Your task to perform on an android device: change the clock style Image 0: 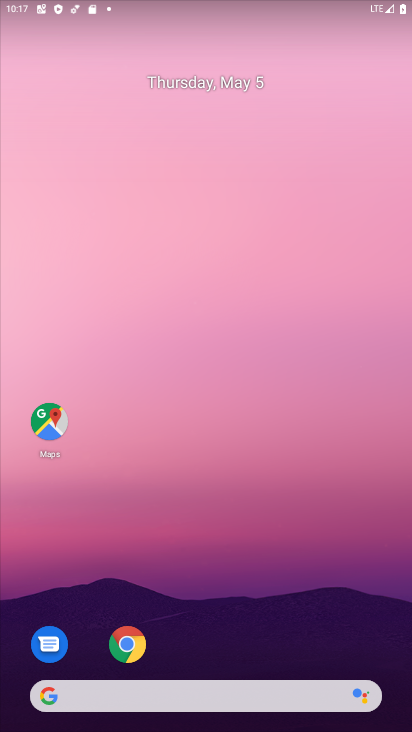
Step 0: drag from (211, 655) to (25, 51)
Your task to perform on an android device: change the clock style Image 1: 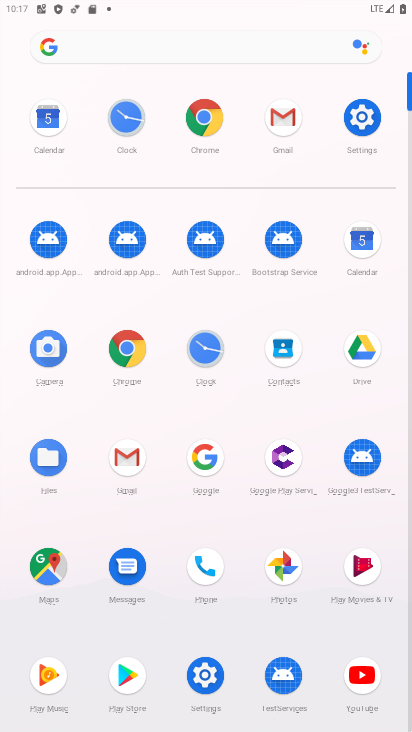
Step 1: click (211, 357)
Your task to perform on an android device: change the clock style Image 2: 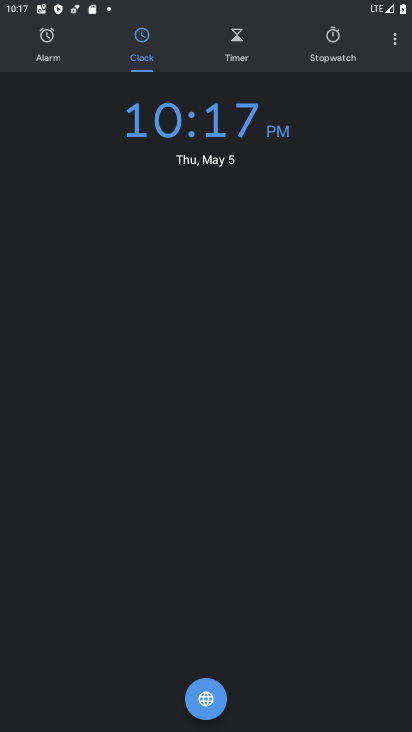
Step 2: click (390, 42)
Your task to perform on an android device: change the clock style Image 3: 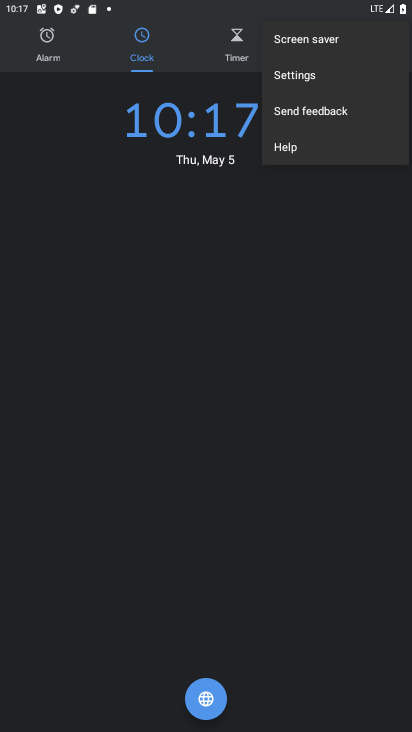
Step 3: click (306, 76)
Your task to perform on an android device: change the clock style Image 4: 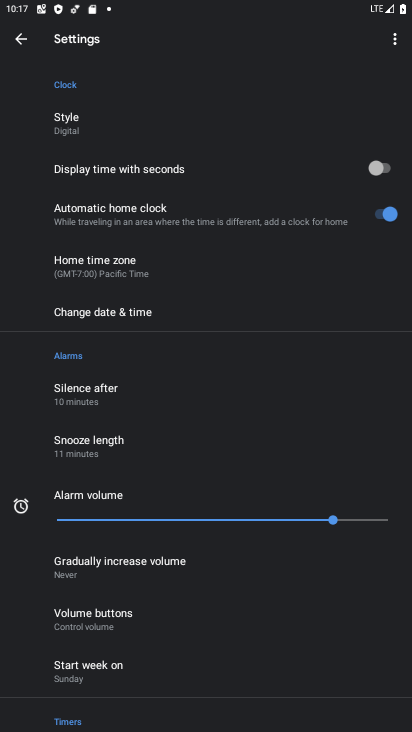
Step 4: click (87, 122)
Your task to perform on an android device: change the clock style Image 5: 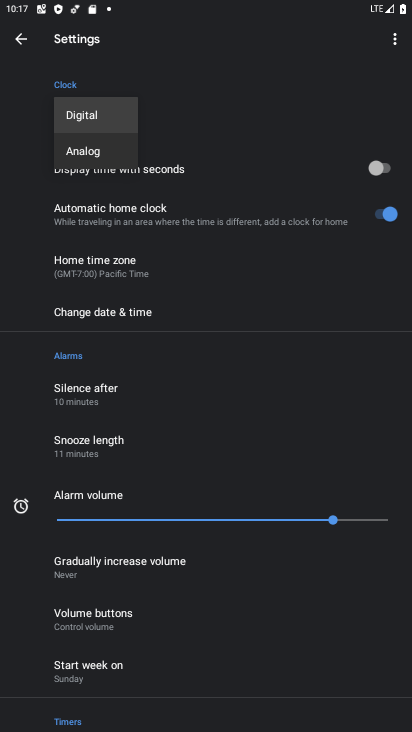
Step 5: click (84, 148)
Your task to perform on an android device: change the clock style Image 6: 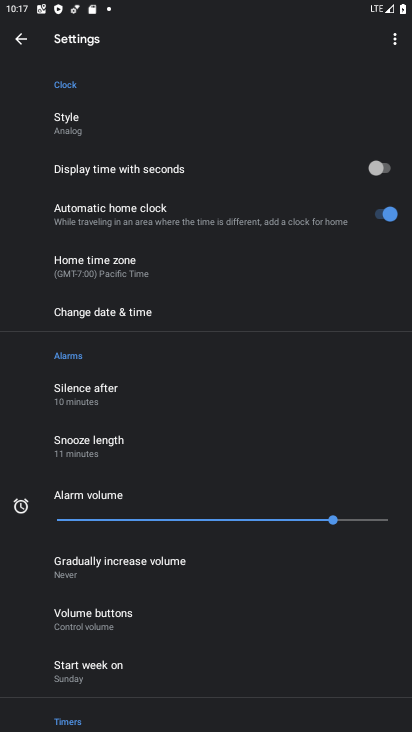
Step 6: task complete